Your task to perform on an android device: turn on airplane mode Image 0: 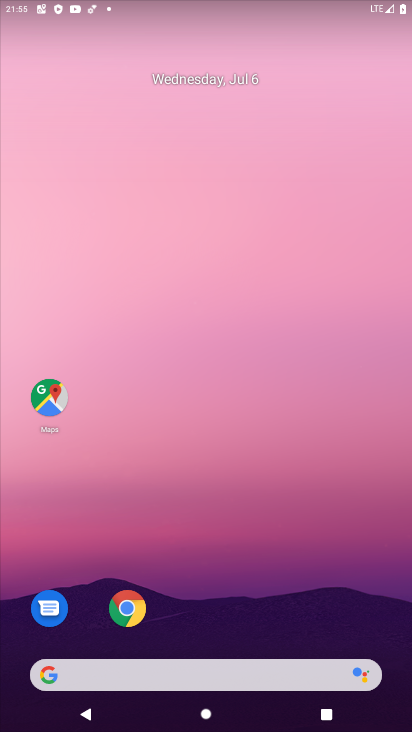
Step 0: drag from (237, 553) to (225, 171)
Your task to perform on an android device: turn on airplane mode Image 1: 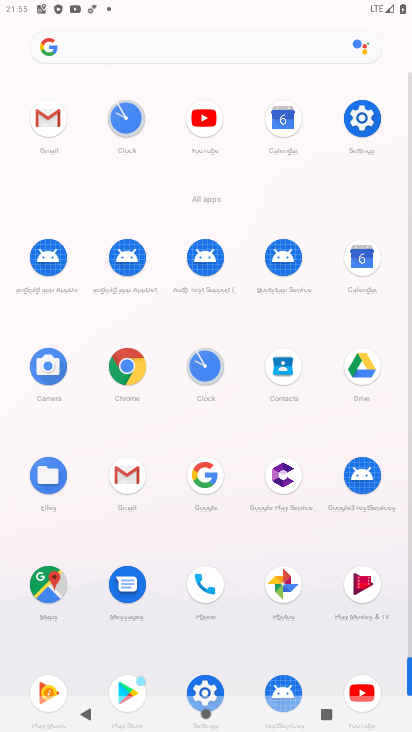
Step 1: click (356, 116)
Your task to perform on an android device: turn on airplane mode Image 2: 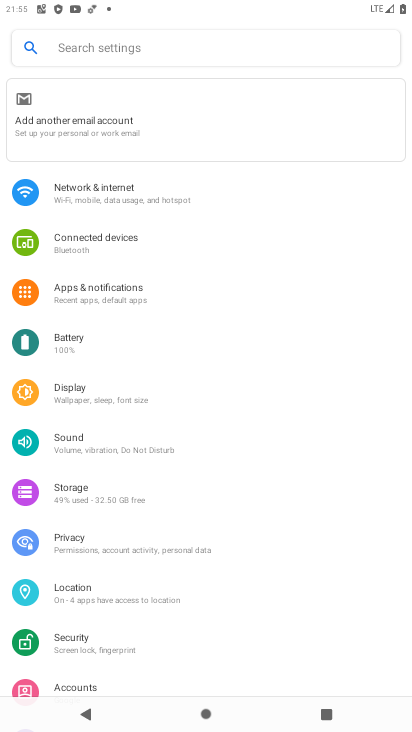
Step 2: click (108, 189)
Your task to perform on an android device: turn on airplane mode Image 3: 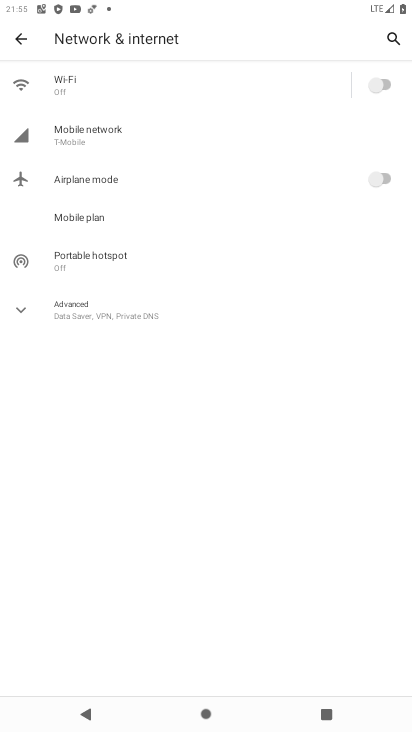
Step 3: click (380, 177)
Your task to perform on an android device: turn on airplane mode Image 4: 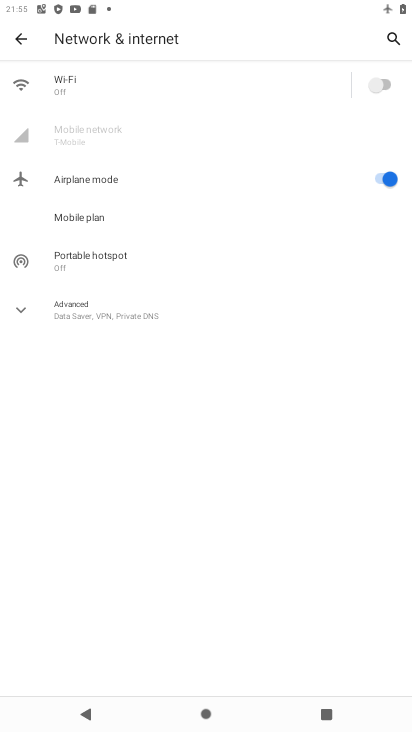
Step 4: task complete